Your task to perform on an android device: see sites visited before in the chrome app Image 0: 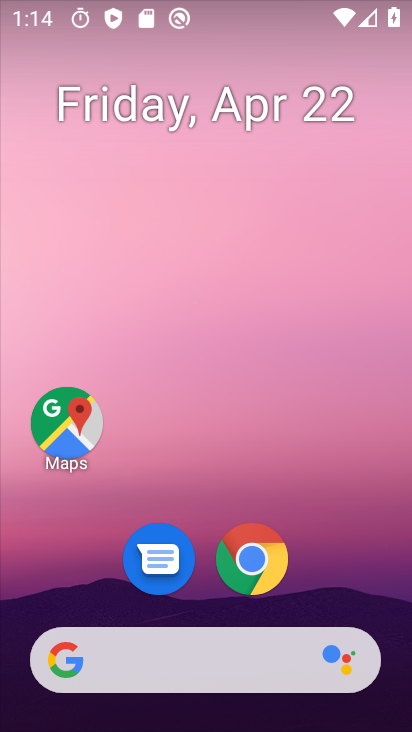
Step 0: drag from (355, 592) to (356, 219)
Your task to perform on an android device: see sites visited before in the chrome app Image 1: 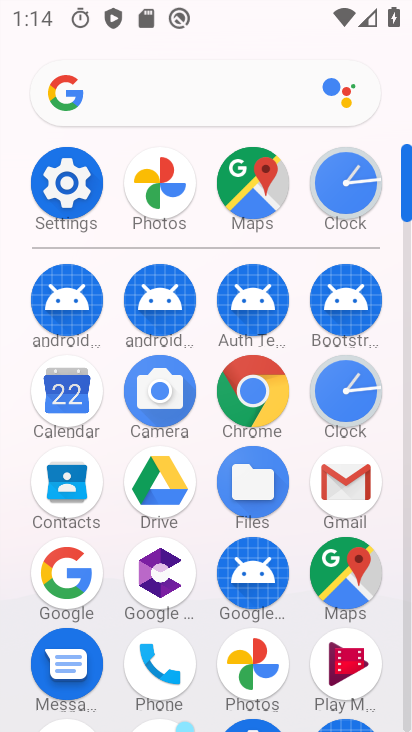
Step 1: click (260, 398)
Your task to perform on an android device: see sites visited before in the chrome app Image 2: 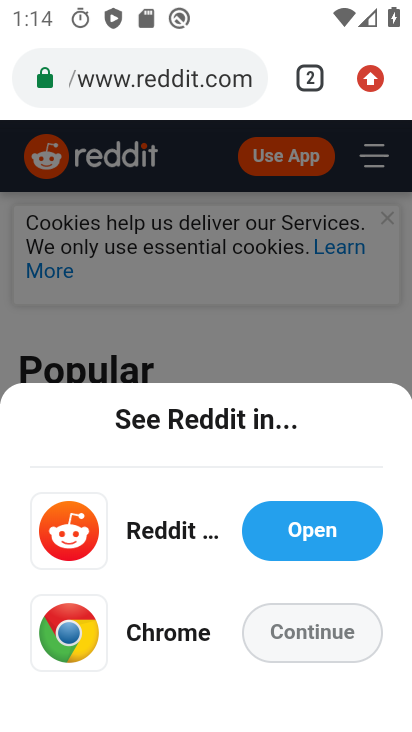
Step 2: click (363, 70)
Your task to perform on an android device: see sites visited before in the chrome app Image 3: 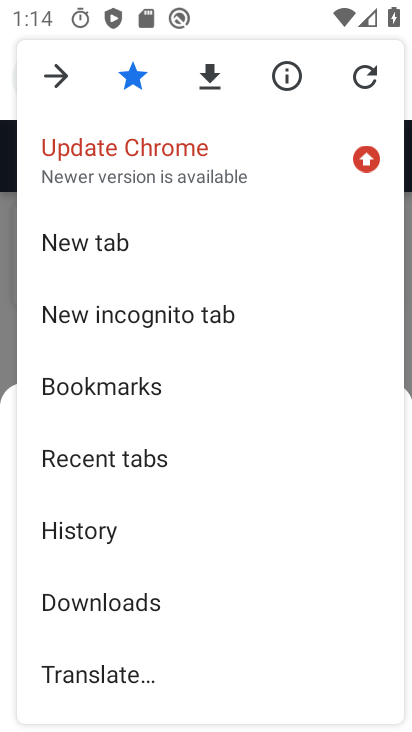
Step 3: drag from (248, 594) to (250, 514)
Your task to perform on an android device: see sites visited before in the chrome app Image 4: 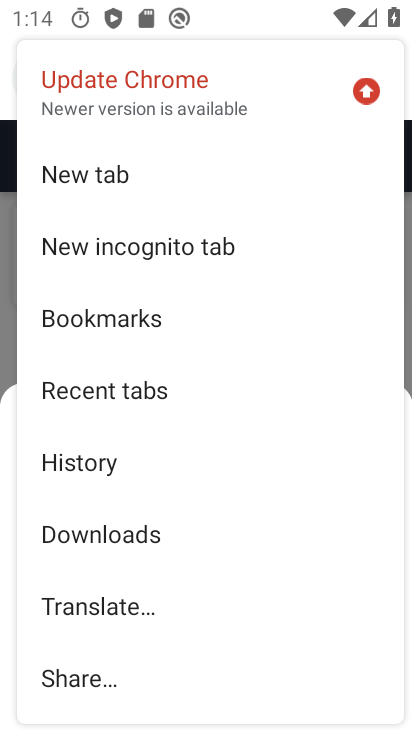
Step 4: click (119, 461)
Your task to perform on an android device: see sites visited before in the chrome app Image 5: 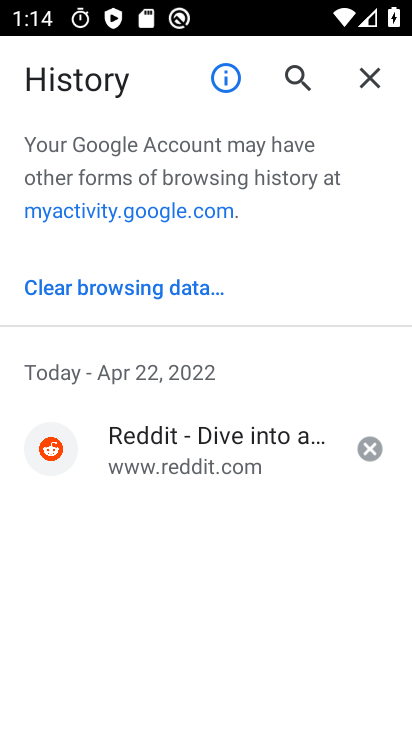
Step 5: task complete